Your task to perform on an android device: change the upload size in google photos Image 0: 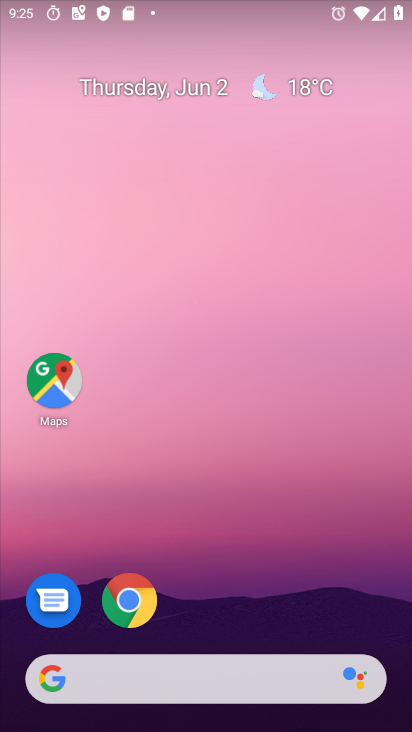
Step 0: drag from (363, 617) to (371, 178)
Your task to perform on an android device: change the upload size in google photos Image 1: 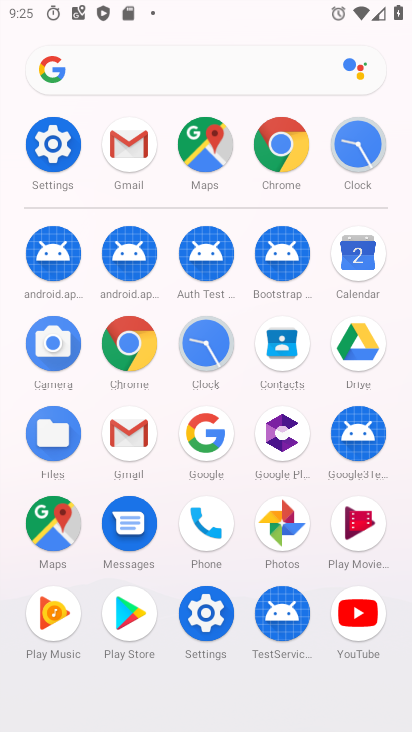
Step 1: click (273, 531)
Your task to perform on an android device: change the upload size in google photos Image 2: 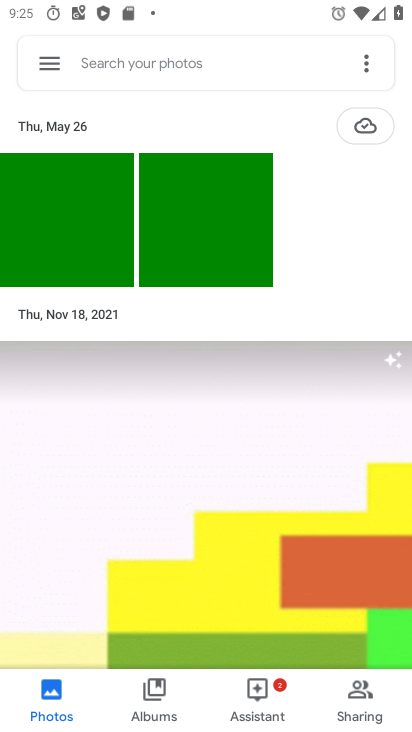
Step 2: click (49, 71)
Your task to perform on an android device: change the upload size in google photos Image 3: 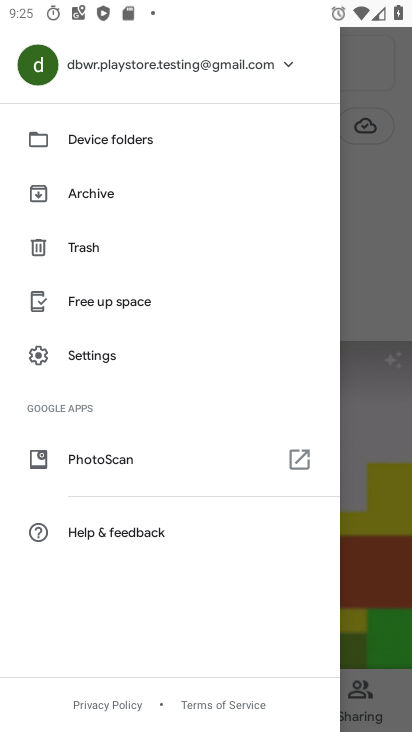
Step 3: click (116, 360)
Your task to perform on an android device: change the upload size in google photos Image 4: 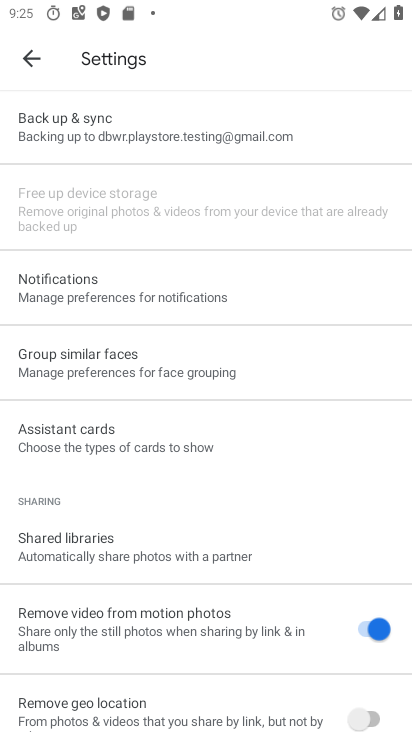
Step 4: drag from (322, 480) to (328, 373)
Your task to perform on an android device: change the upload size in google photos Image 5: 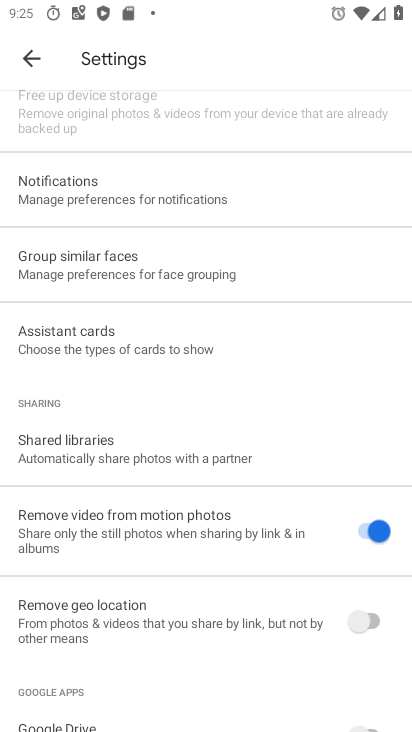
Step 5: drag from (304, 572) to (304, 449)
Your task to perform on an android device: change the upload size in google photos Image 6: 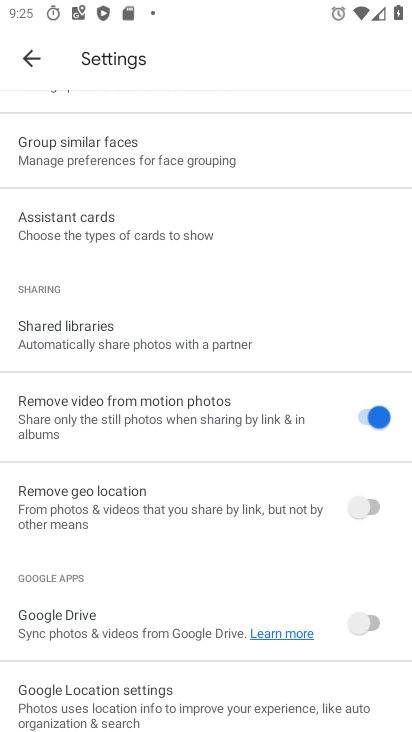
Step 6: drag from (291, 565) to (298, 449)
Your task to perform on an android device: change the upload size in google photos Image 7: 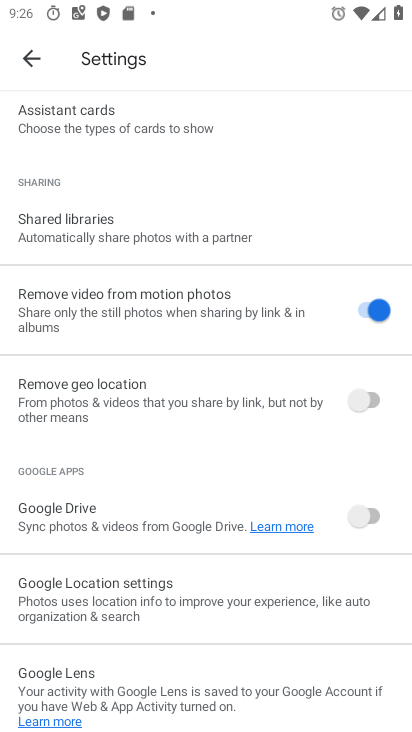
Step 7: drag from (306, 624) to (301, 476)
Your task to perform on an android device: change the upload size in google photos Image 8: 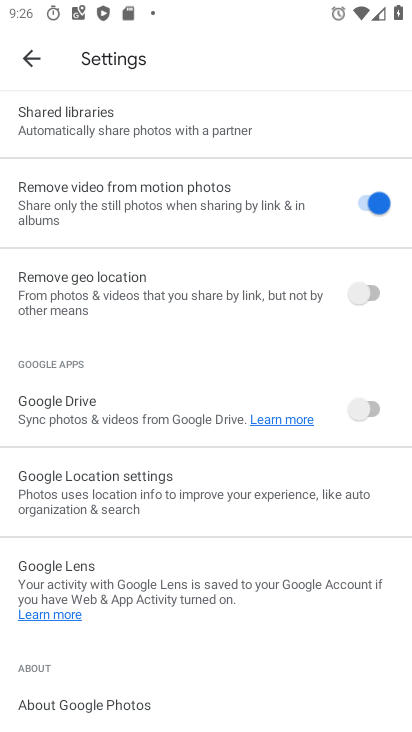
Step 8: drag from (292, 258) to (290, 397)
Your task to perform on an android device: change the upload size in google photos Image 9: 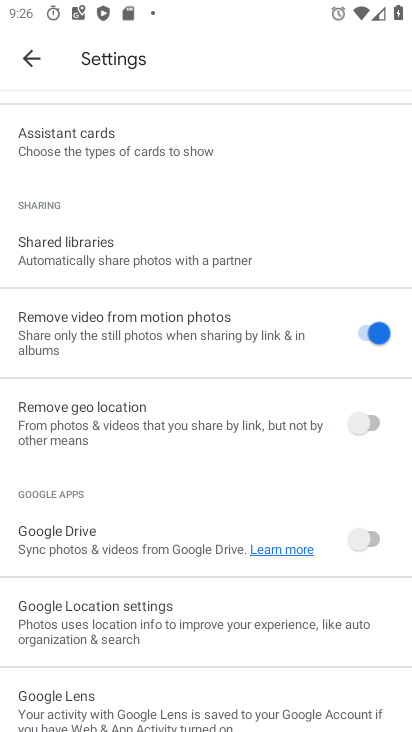
Step 9: drag from (301, 237) to (294, 369)
Your task to perform on an android device: change the upload size in google photos Image 10: 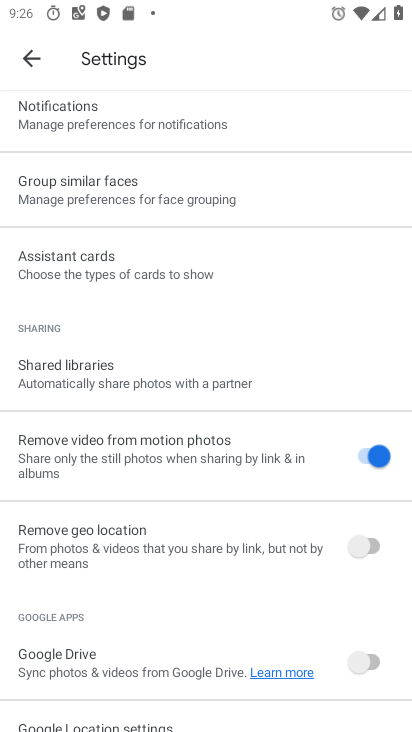
Step 10: drag from (295, 246) to (302, 381)
Your task to perform on an android device: change the upload size in google photos Image 11: 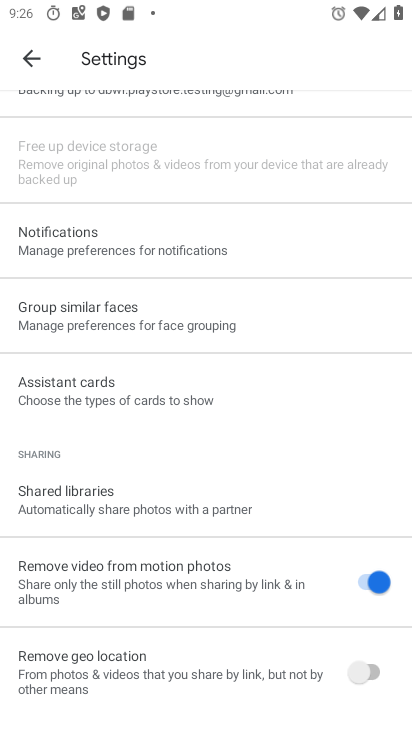
Step 11: drag from (311, 234) to (313, 336)
Your task to perform on an android device: change the upload size in google photos Image 12: 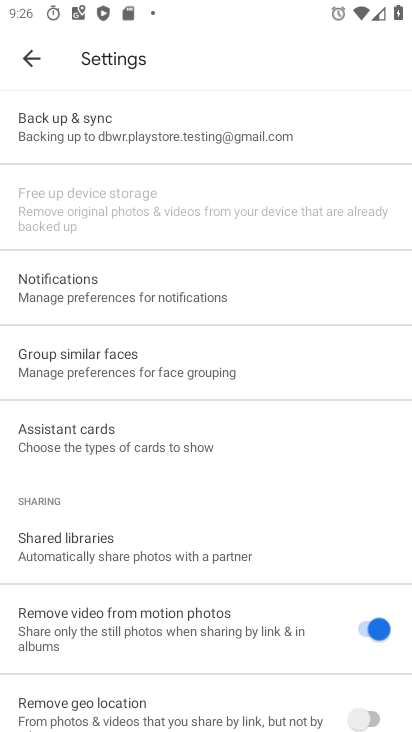
Step 12: click (257, 132)
Your task to perform on an android device: change the upload size in google photos Image 13: 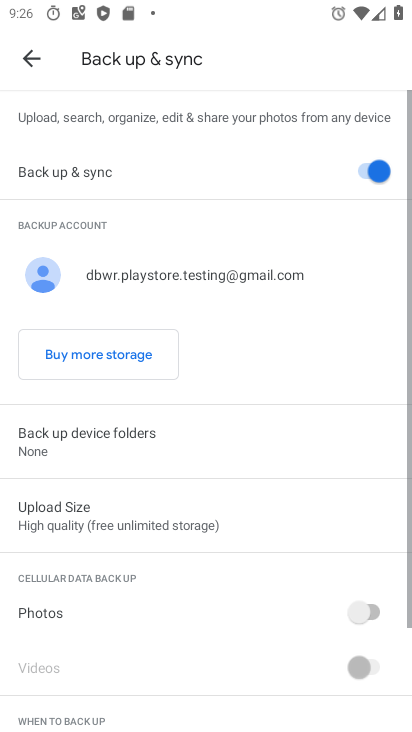
Step 13: drag from (262, 417) to (268, 262)
Your task to perform on an android device: change the upload size in google photos Image 14: 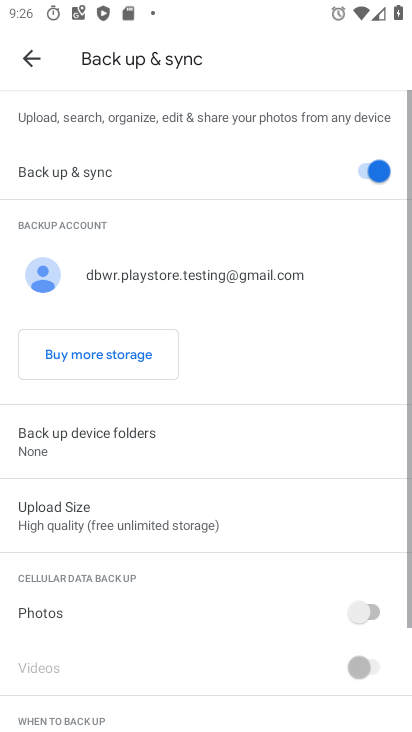
Step 14: drag from (266, 521) to (273, 306)
Your task to perform on an android device: change the upload size in google photos Image 15: 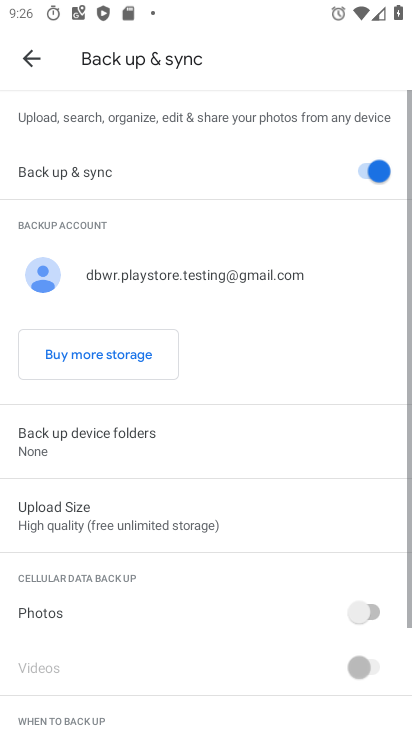
Step 15: click (169, 518)
Your task to perform on an android device: change the upload size in google photos Image 16: 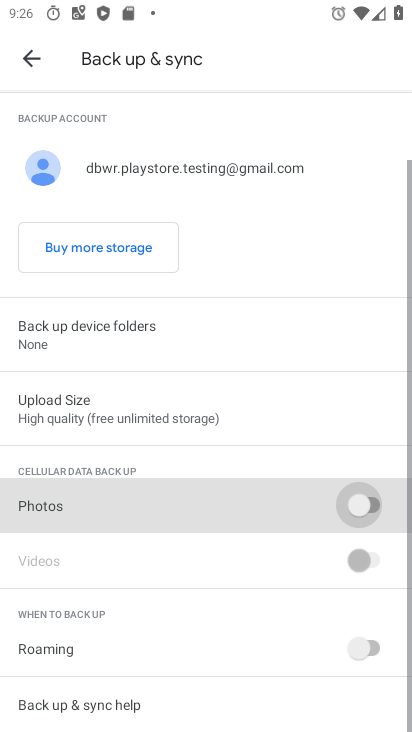
Step 16: click (107, 414)
Your task to perform on an android device: change the upload size in google photos Image 17: 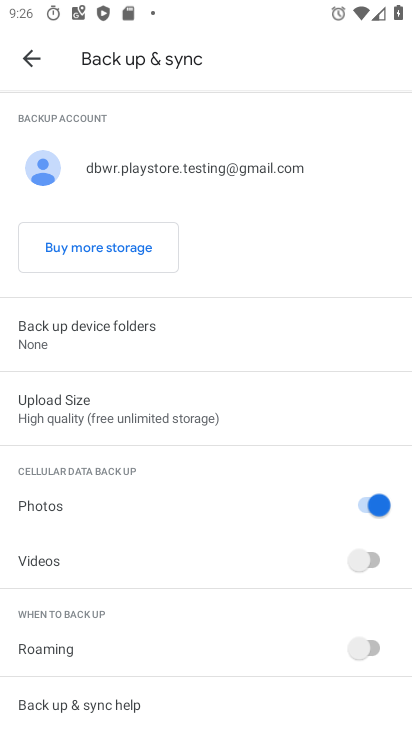
Step 17: click (174, 409)
Your task to perform on an android device: change the upload size in google photos Image 18: 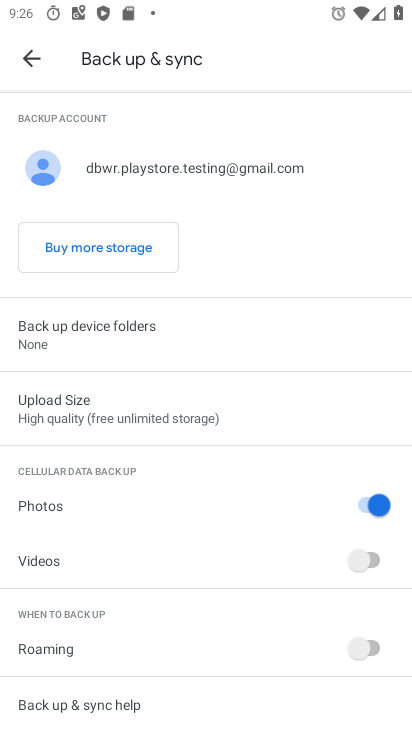
Step 18: click (174, 409)
Your task to perform on an android device: change the upload size in google photos Image 19: 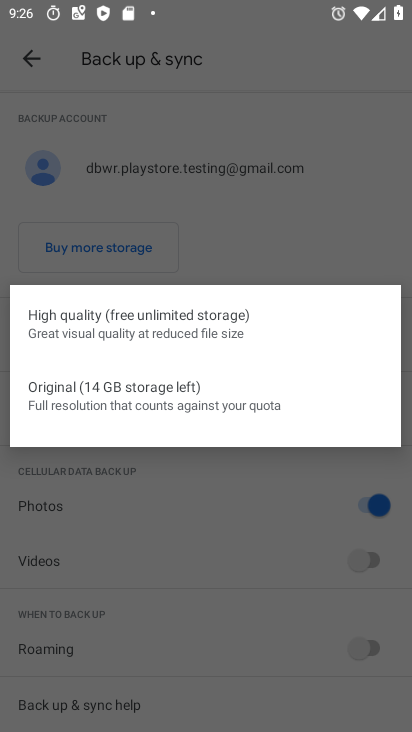
Step 19: click (136, 398)
Your task to perform on an android device: change the upload size in google photos Image 20: 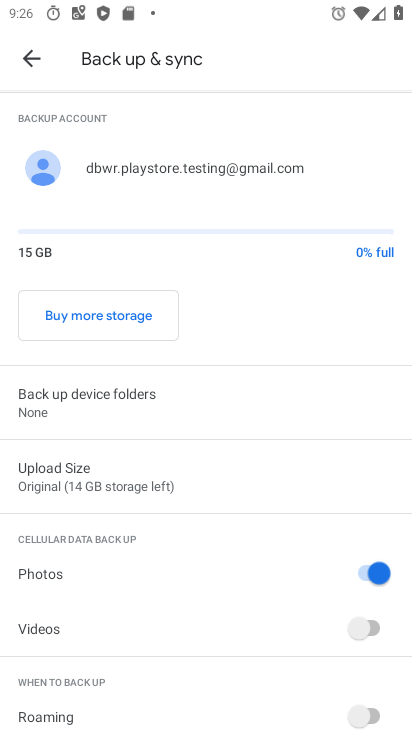
Step 20: task complete